Your task to perform on an android device: open a bookmark in the chrome app Image 0: 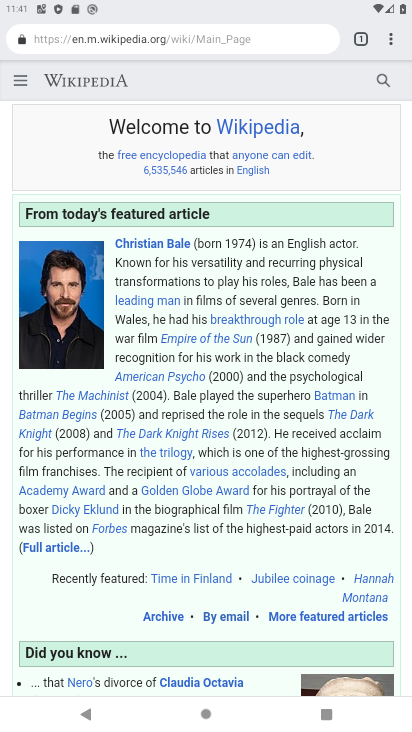
Step 0: press home button
Your task to perform on an android device: open a bookmark in the chrome app Image 1: 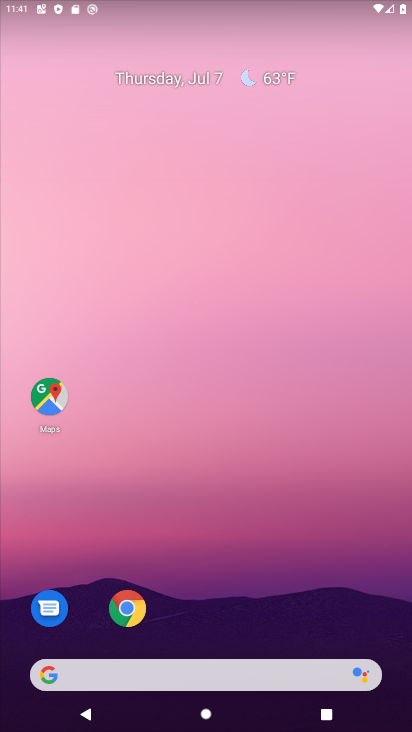
Step 1: click (124, 619)
Your task to perform on an android device: open a bookmark in the chrome app Image 2: 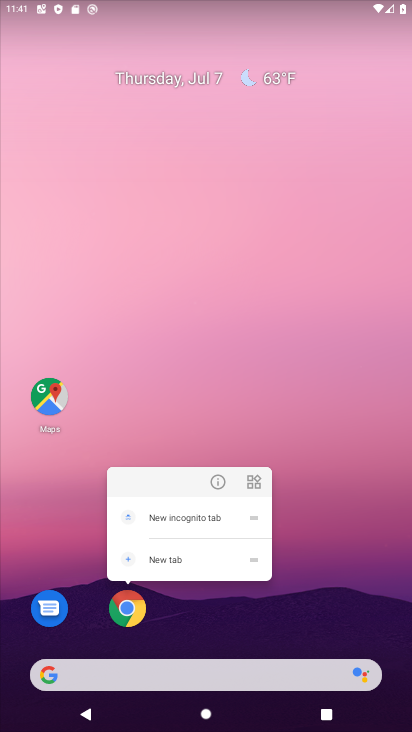
Step 2: click (127, 604)
Your task to perform on an android device: open a bookmark in the chrome app Image 3: 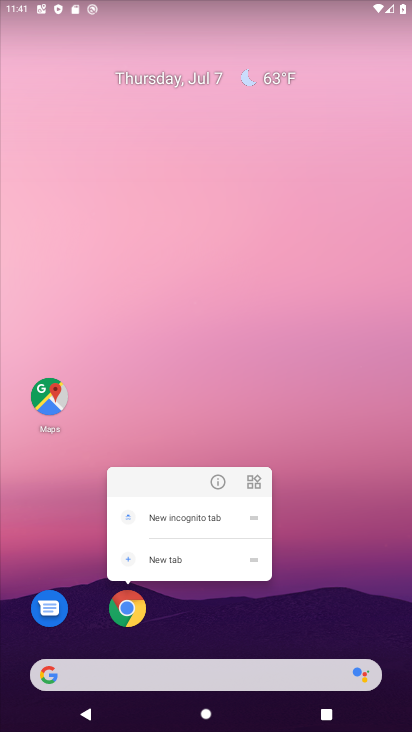
Step 3: click (127, 604)
Your task to perform on an android device: open a bookmark in the chrome app Image 4: 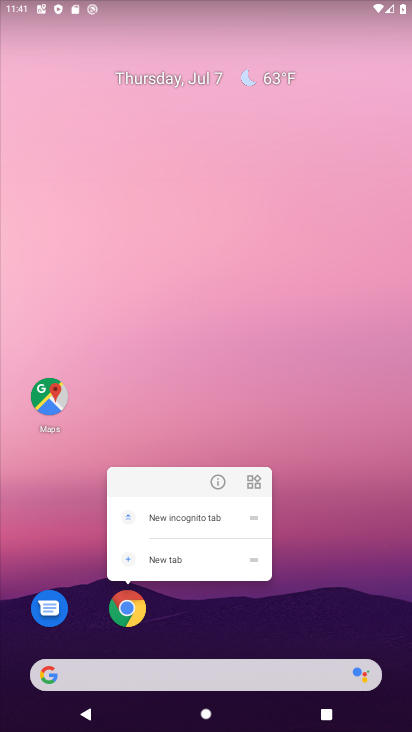
Step 4: click (134, 580)
Your task to perform on an android device: open a bookmark in the chrome app Image 5: 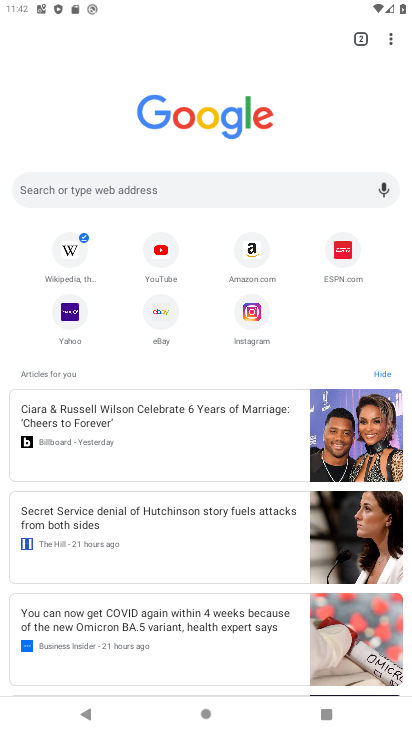
Step 5: click (394, 29)
Your task to perform on an android device: open a bookmark in the chrome app Image 6: 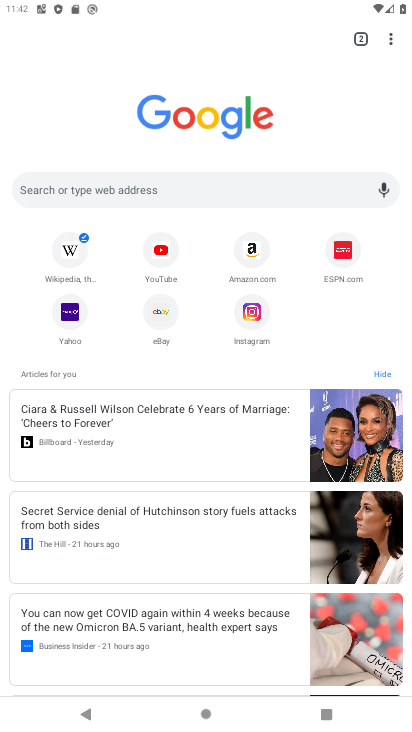
Step 6: click (384, 42)
Your task to perform on an android device: open a bookmark in the chrome app Image 7: 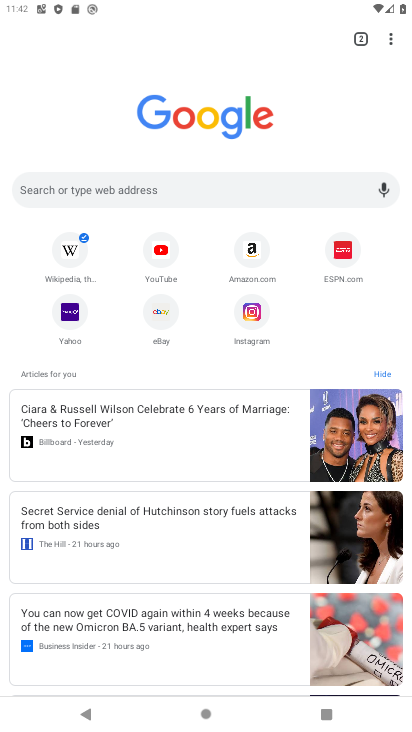
Step 7: click (390, 38)
Your task to perform on an android device: open a bookmark in the chrome app Image 8: 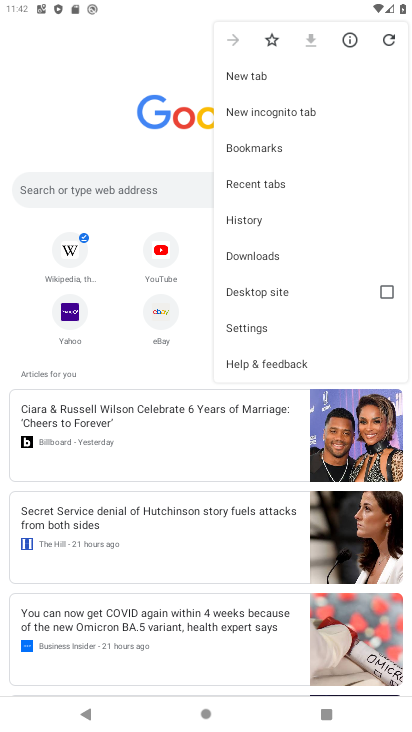
Step 8: click (285, 140)
Your task to perform on an android device: open a bookmark in the chrome app Image 9: 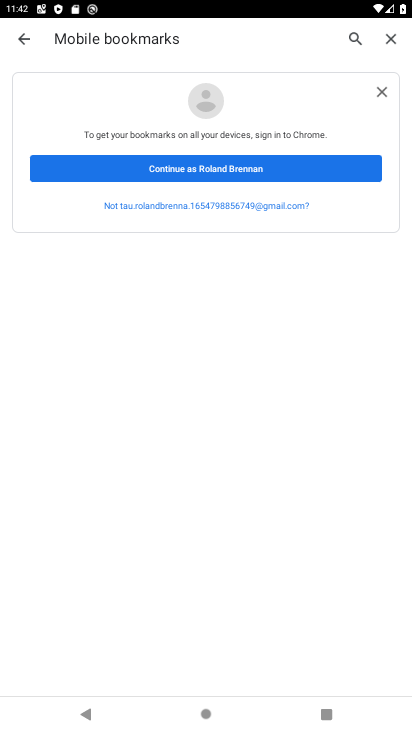
Step 9: click (377, 91)
Your task to perform on an android device: open a bookmark in the chrome app Image 10: 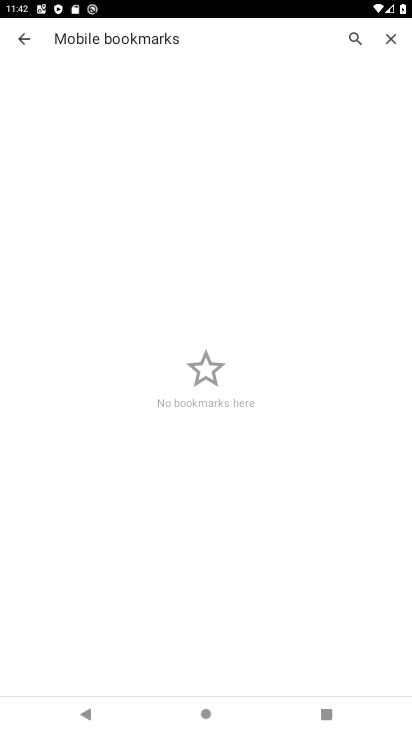
Step 10: task complete